Your task to perform on an android device: change the clock display to digital Image 0: 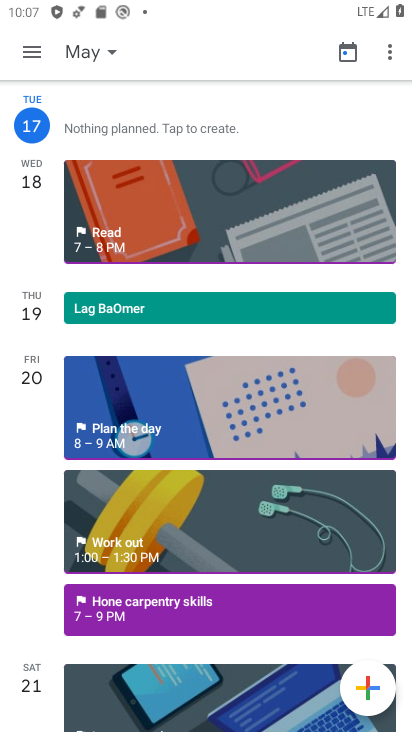
Step 0: press home button
Your task to perform on an android device: change the clock display to digital Image 1: 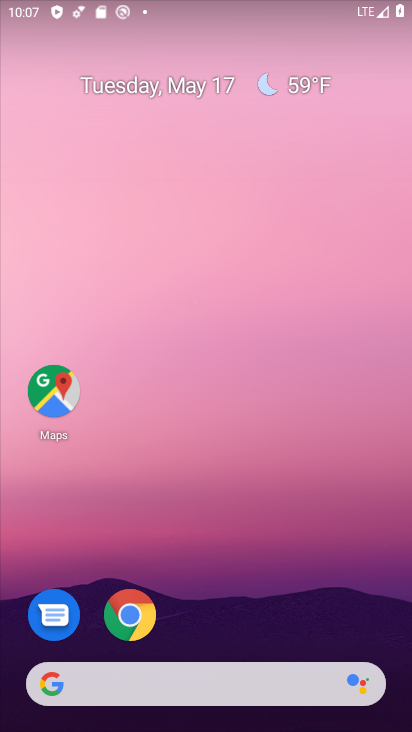
Step 1: drag from (150, 687) to (290, 156)
Your task to perform on an android device: change the clock display to digital Image 2: 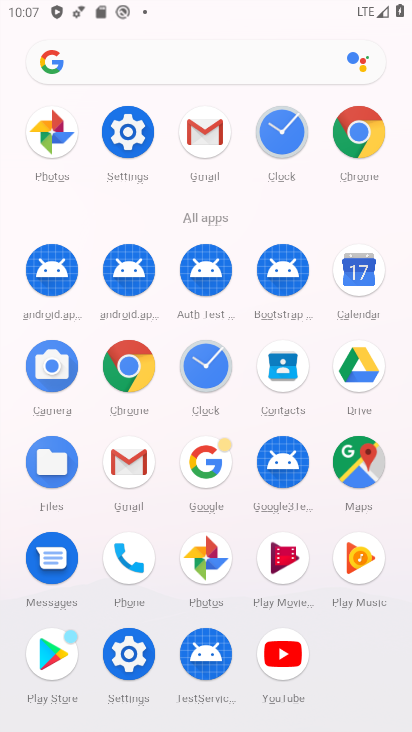
Step 2: click (277, 144)
Your task to perform on an android device: change the clock display to digital Image 3: 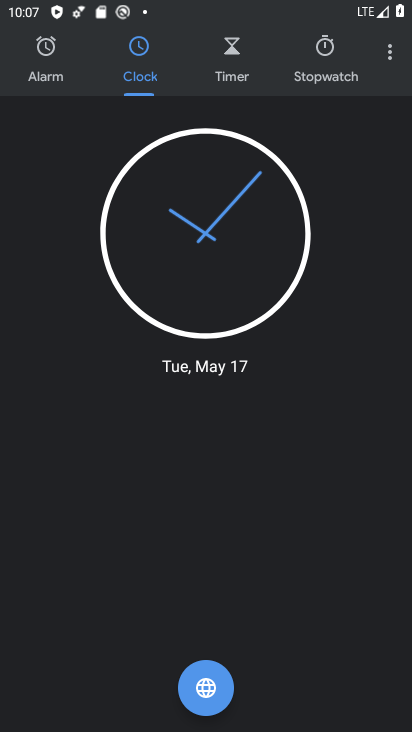
Step 3: click (388, 56)
Your task to perform on an android device: change the clock display to digital Image 4: 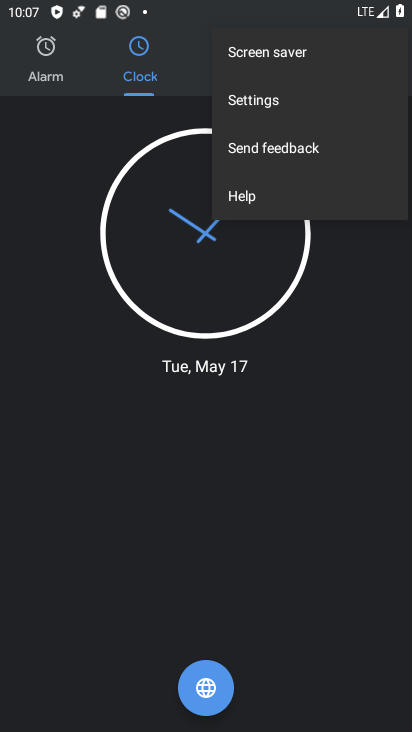
Step 4: click (243, 103)
Your task to perform on an android device: change the clock display to digital Image 5: 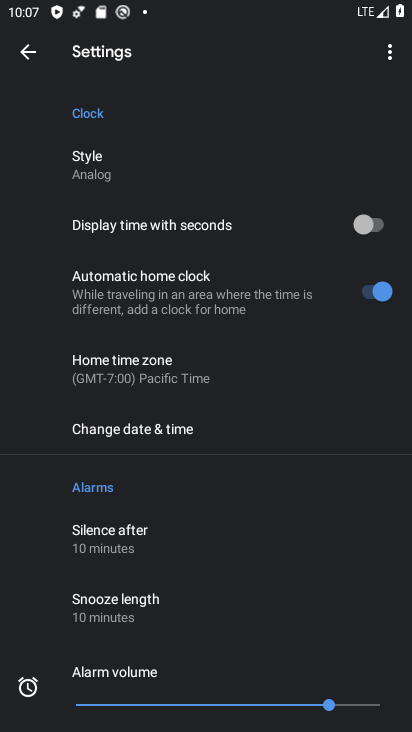
Step 5: click (94, 171)
Your task to perform on an android device: change the clock display to digital Image 6: 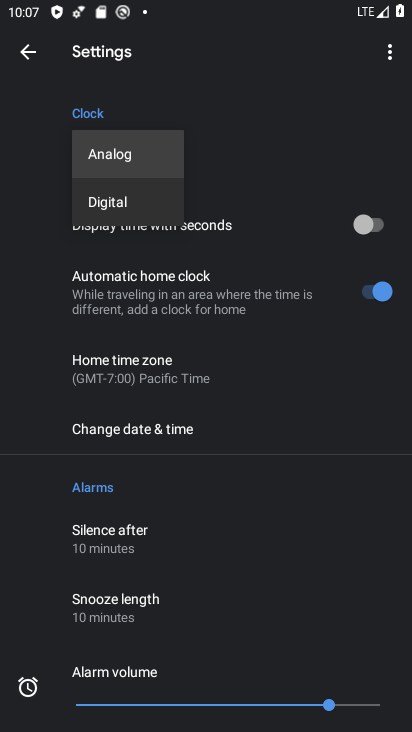
Step 6: click (106, 207)
Your task to perform on an android device: change the clock display to digital Image 7: 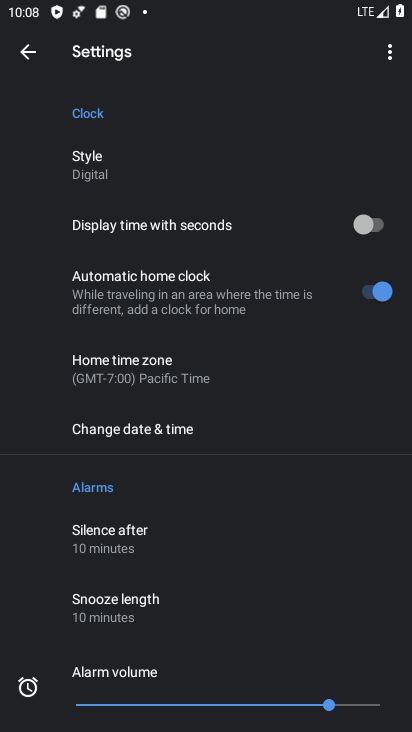
Step 7: task complete